Your task to perform on an android device: remove spam from my inbox in the gmail app Image 0: 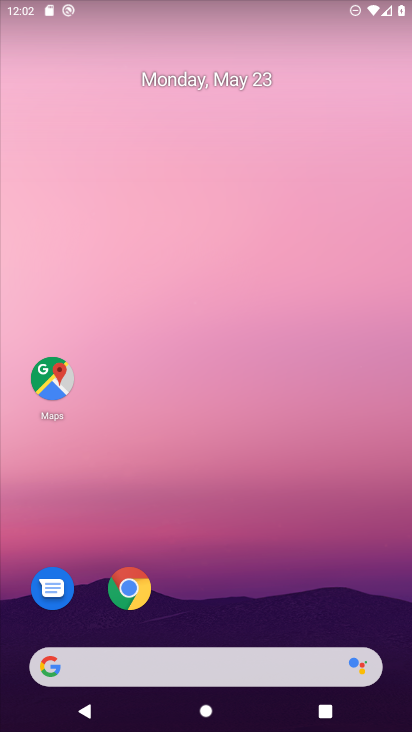
Step 0: drag from (286, 654) to (245, 37)
Your task to perform on an android device: remove spam from my inbox in the gmail app Image 1: 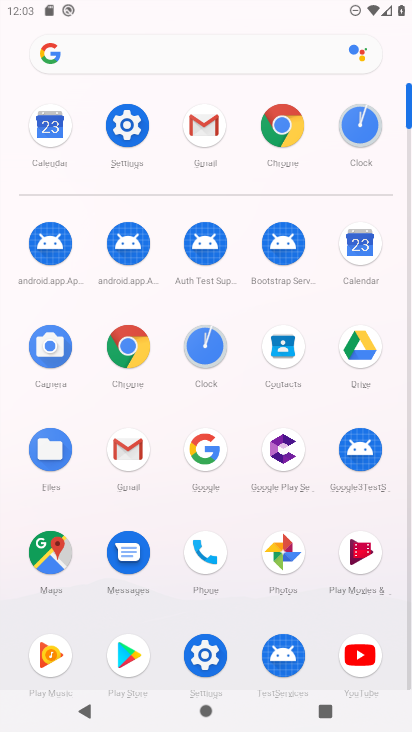
Step 1: click (121, 471)
Your task to perform on an android device: remove spam from my inbox in the gmail app Image 2: 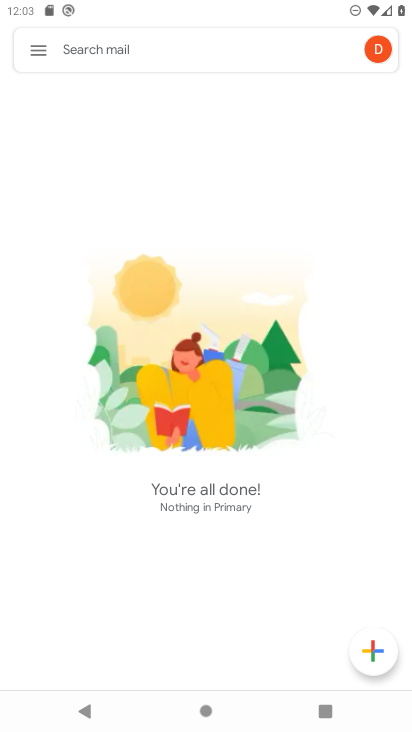
Step 2: click (41, 60)
Your task to perform on an android device: remove spam from my inbox in the gmail app Image 3: 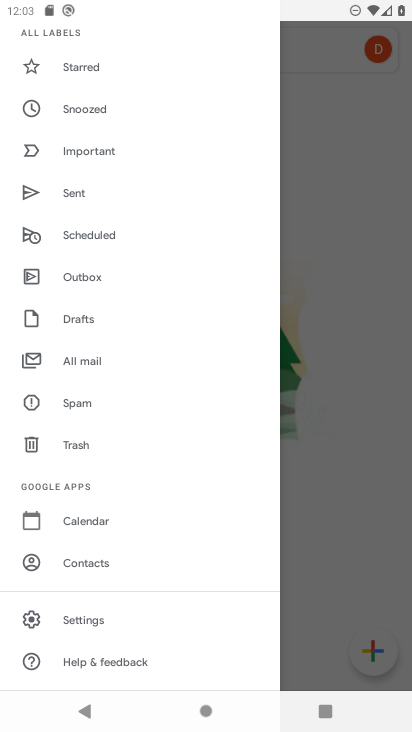
Step 3: click (85, 401)
Your task to perform on an android device: remove spam from my inbox in the gmail app Image 4: 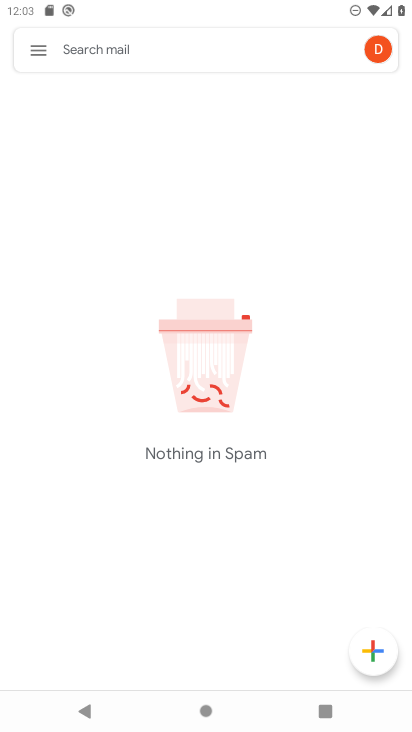
Step 4: task complete